Your task to perform on an android device: refresh tabs in the chrome app Image 0: 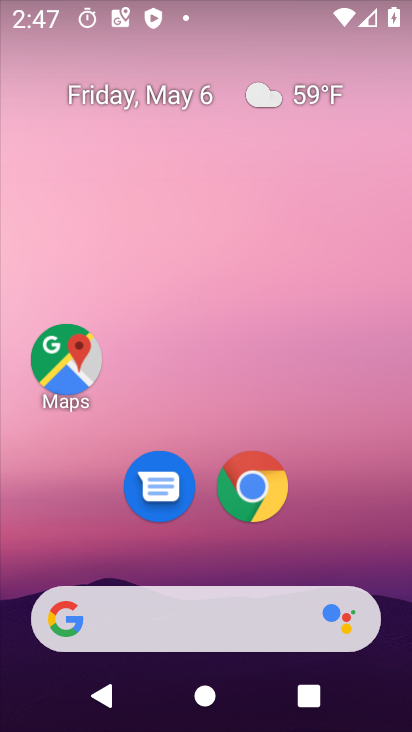
Step 0: click (257, 493)
Your task to perform on an android device: refresh tabs in the chrome app Image 1: 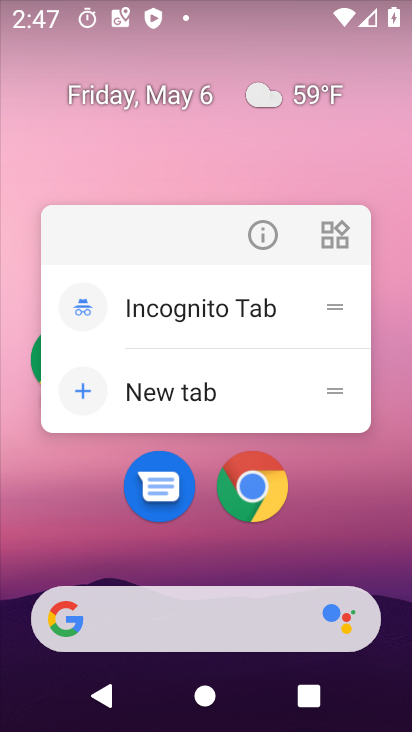
Step 1: click (258, 489)
Your task to perform on an android device: refresh tabs in the chrome app Image 2: 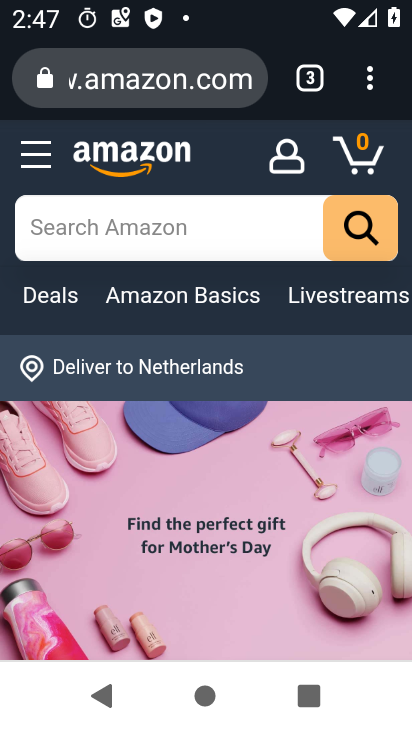
Step 2: click (372, 84)
Your task to perform on an android device: refresh tabs in the chrome app Image 3: 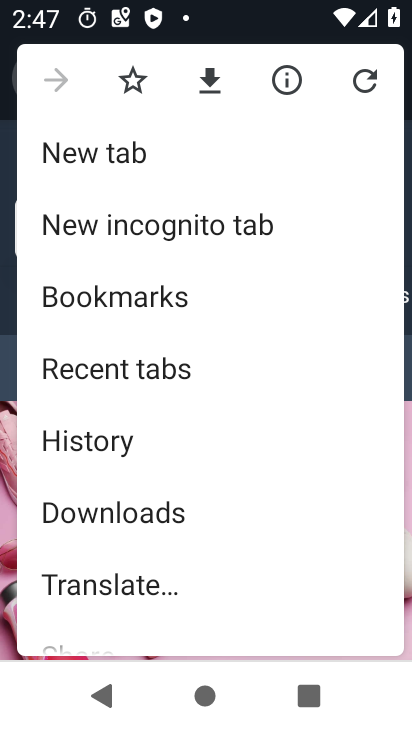
Step 3: click (367, 77)
Your task to perform on an android device: refresh tabs in the chrome app Image 4: 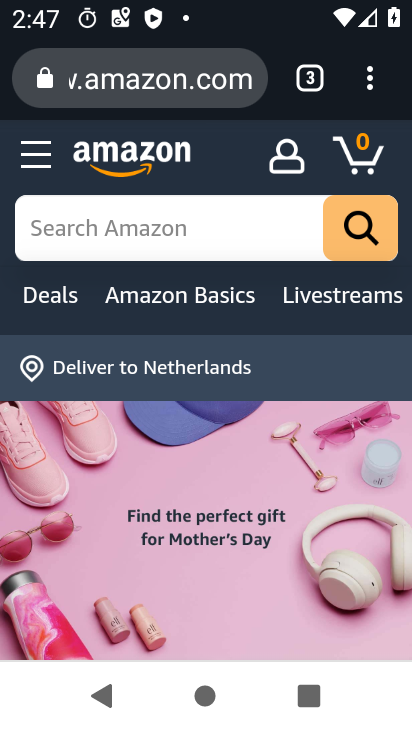
Step 4: task complete